Your task to perform on an android device: toggle wifi Image 0: 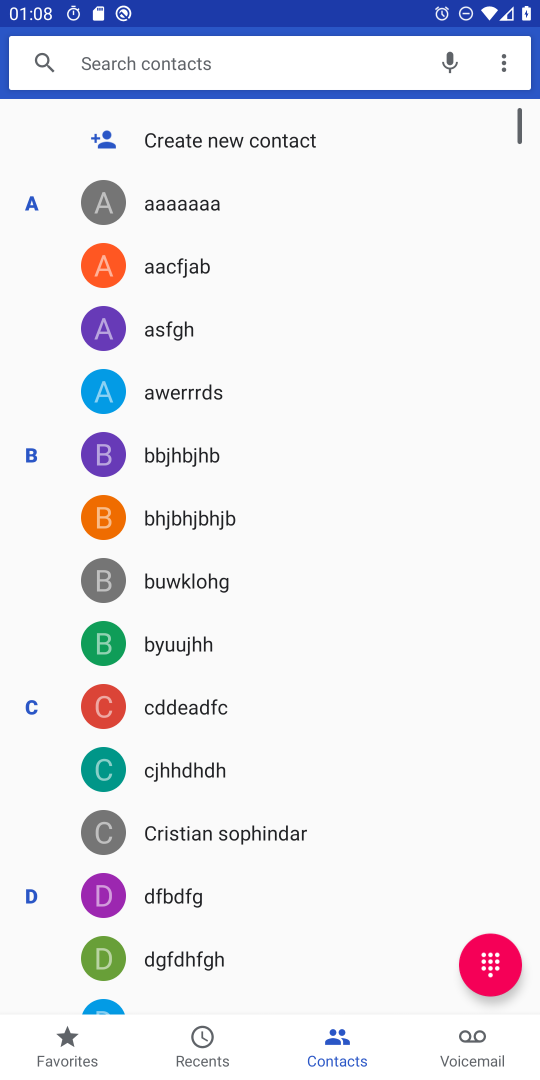
Step 0: drag from (269, 21) to (240, 718)
Your task to perform on an android device: toggle wifi Image 1: 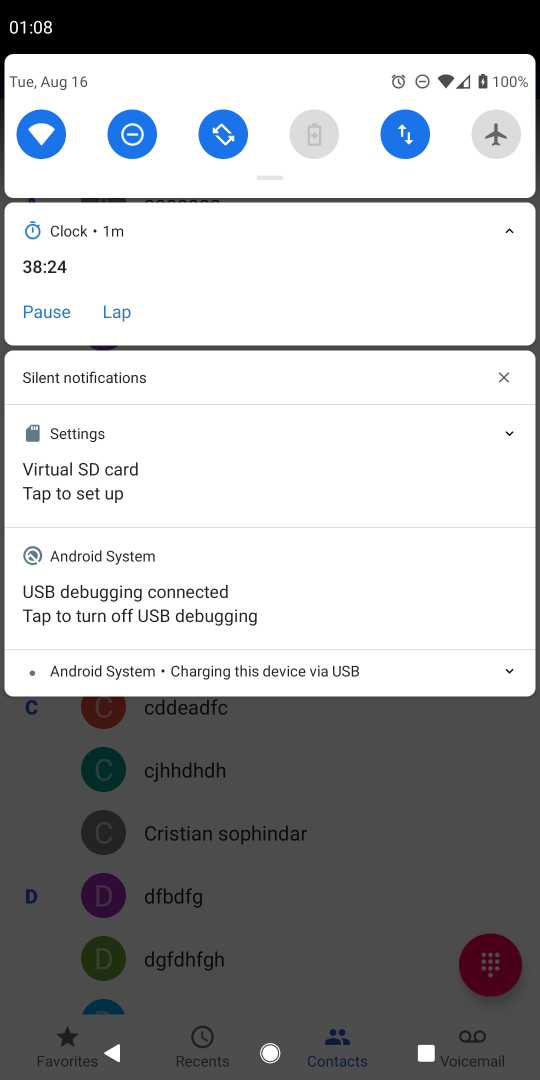
Step 1: click (240, 718)
Your task to perform on an android device: toggle wifi Image 2: 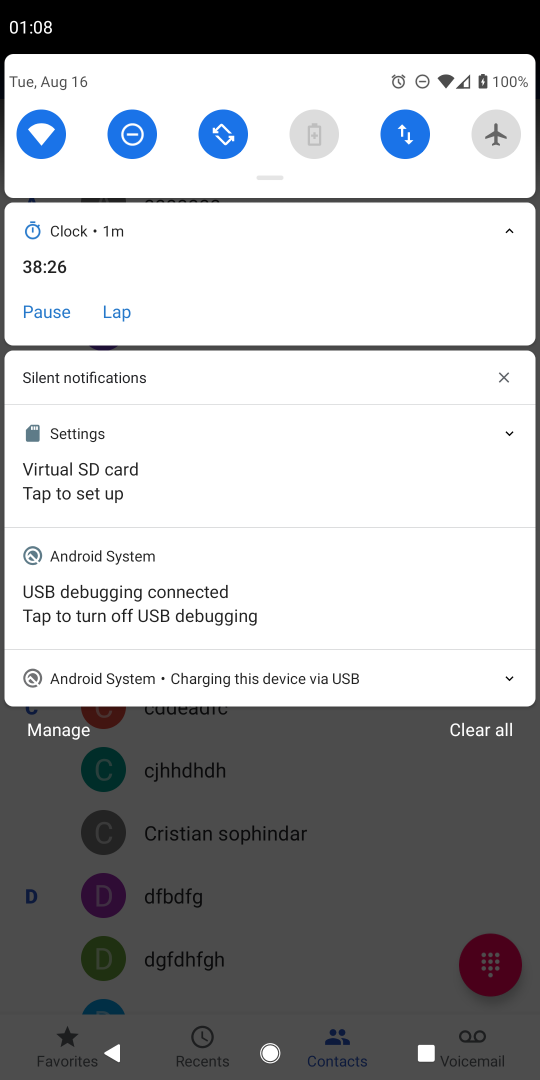
Step 2: click (33, 117)
Your task to perform on an android device: toggle wifi Image 3: 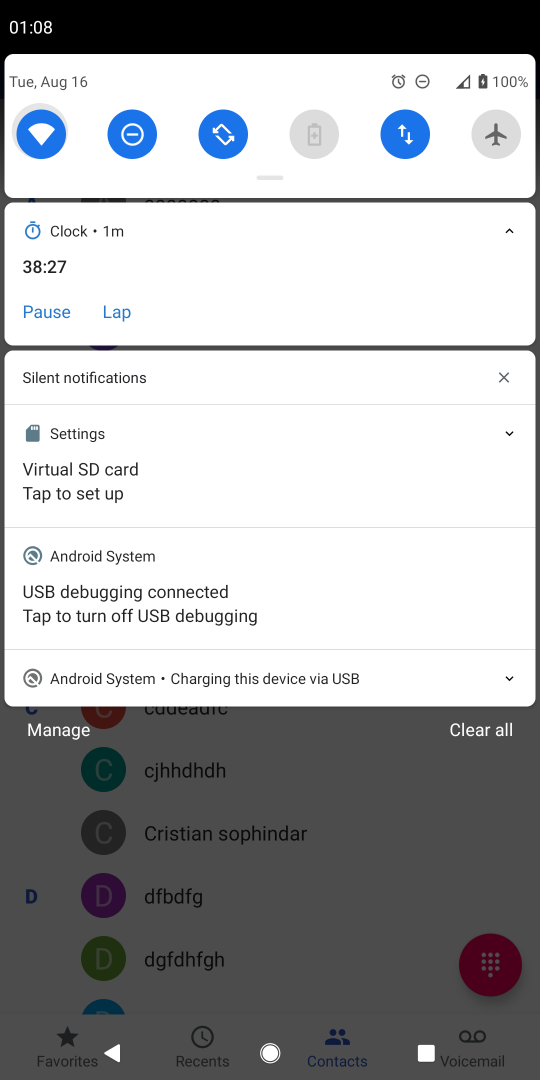
Step 3: click (33, 117)
Your task to perform on an android device: toggle wifi Image 4: 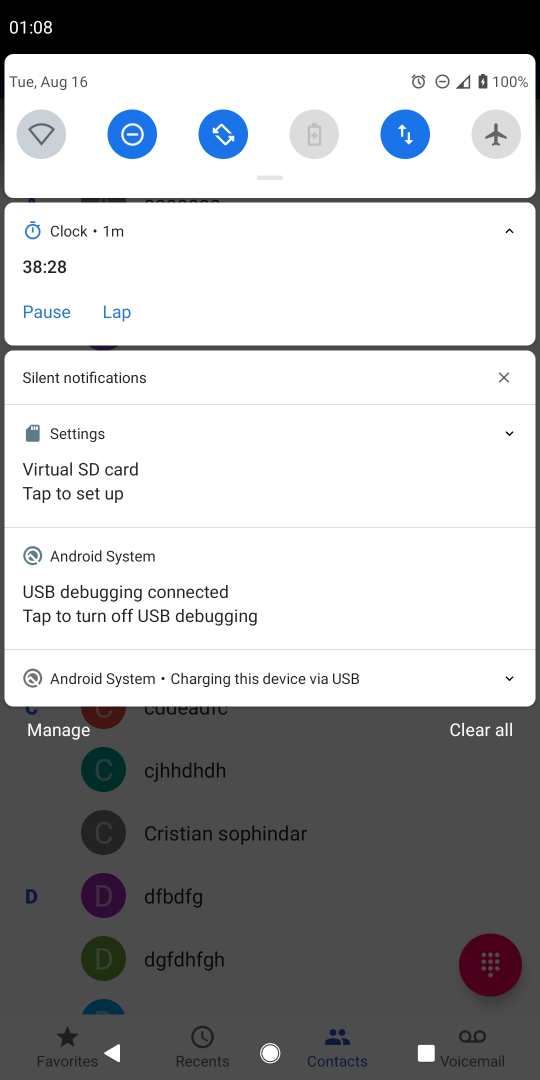
Step 4: click (33, 117)
Your task to perform on an android device: toggle wifi Image 5: 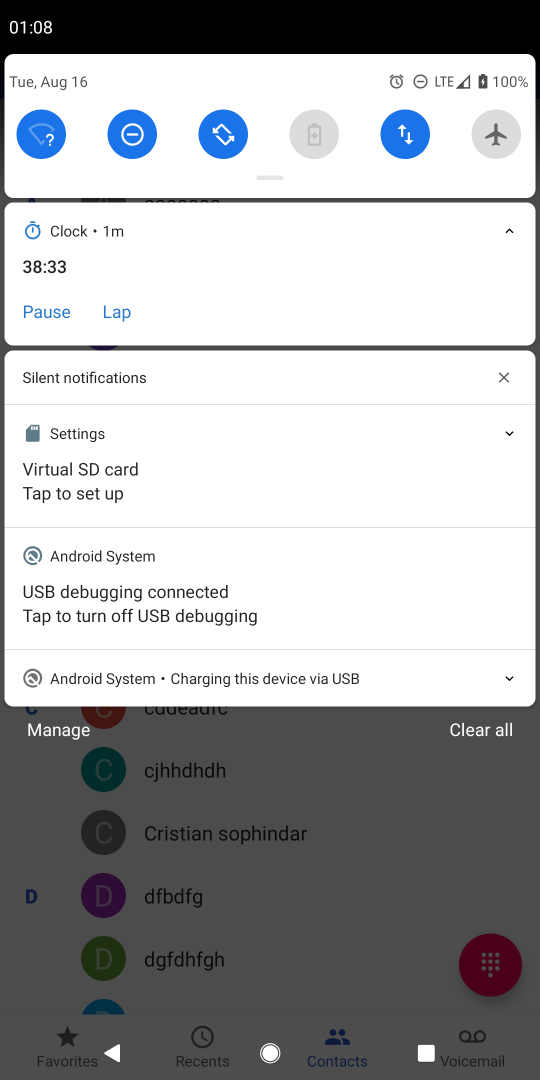
Step 5: task complete